Your task to perform on an android device: Search for pizza restaurants on Maps Image 0: 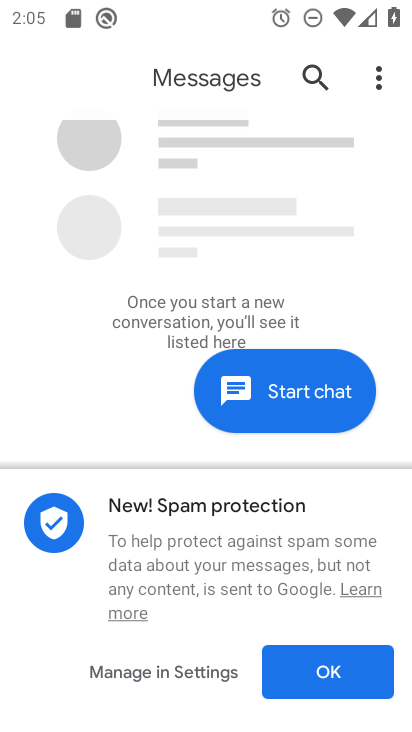
Step 0: press home button
Your task to perform on an android device: Search for pizza restaurants on Maps Image 1: 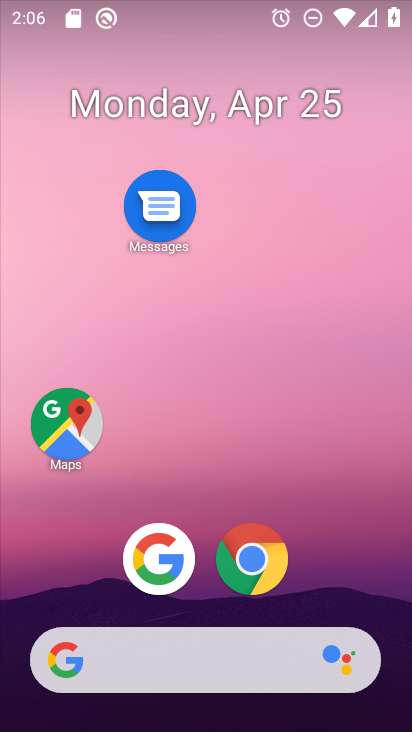
Step 1: click (61, 433)
Your task to perform on an android device: Search for pizza restaurants on Maps Image 2: 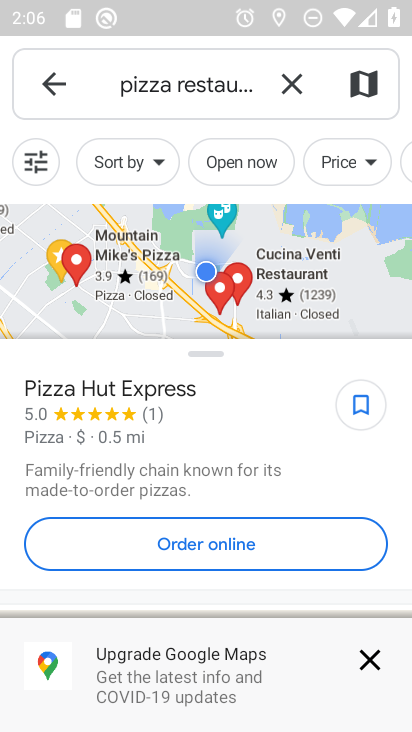
Step 2: task complete